Your task to perform on an android device: toggle translation in the chrome app Image 0: 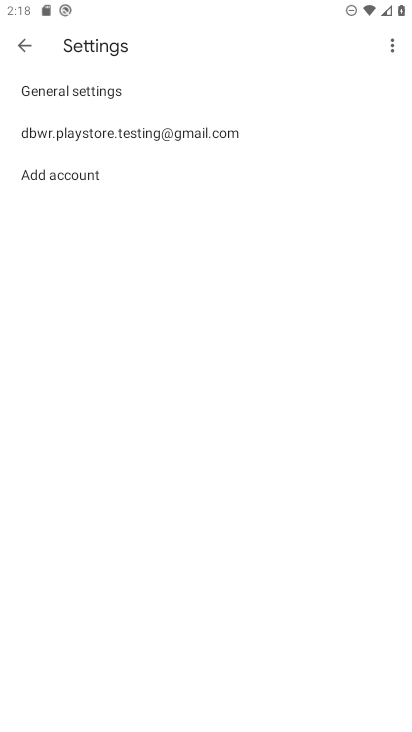
Step 0: press home button
Your task to perform on an android device: toggle translation in the chrome app Image 1: 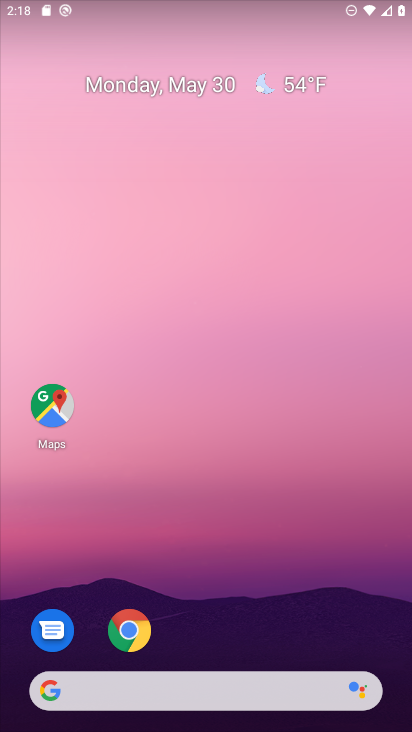
Step 1: click (135, 640)
Your task to perform on an android device: toggle translation in the chrome app Image 2: 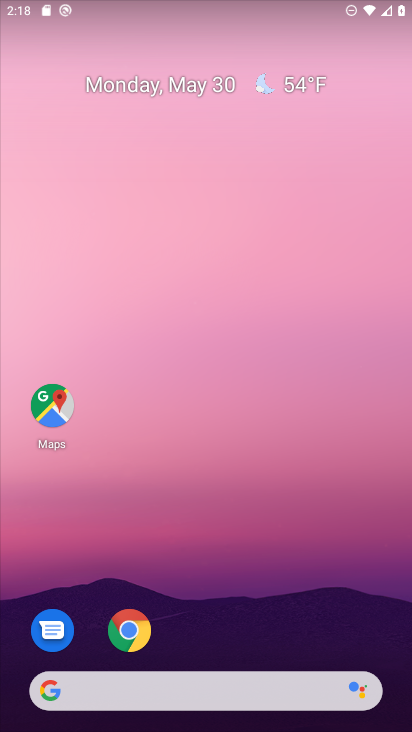
Step 2: click (130, 632)
Your task to perform on an android device: toggle translation in the chrome app Image 3: 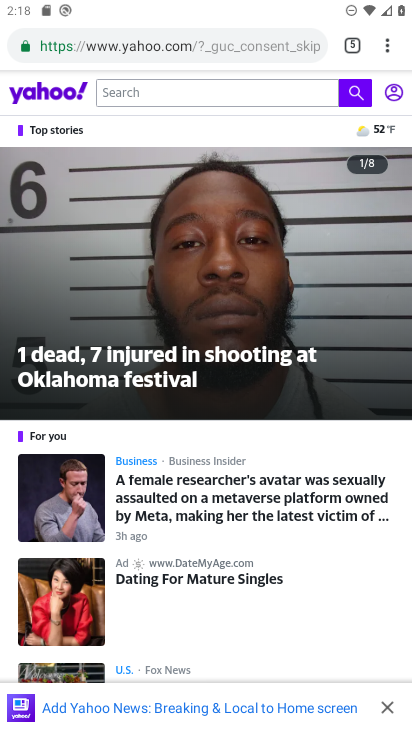
Step 3: drag from (384, 49) to (249, 548)
Your task to perform on an android device: toggle translation in the chrome app Image 4: 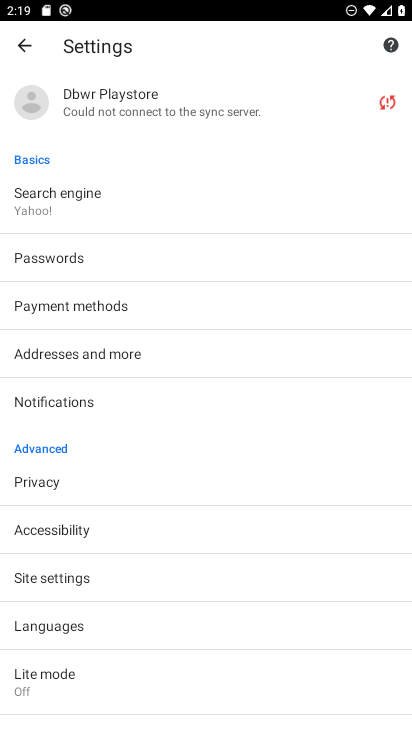
Step 4: click (96, 627)
Your task to perform on an android device: toggle translation in the chrome app Image 5: 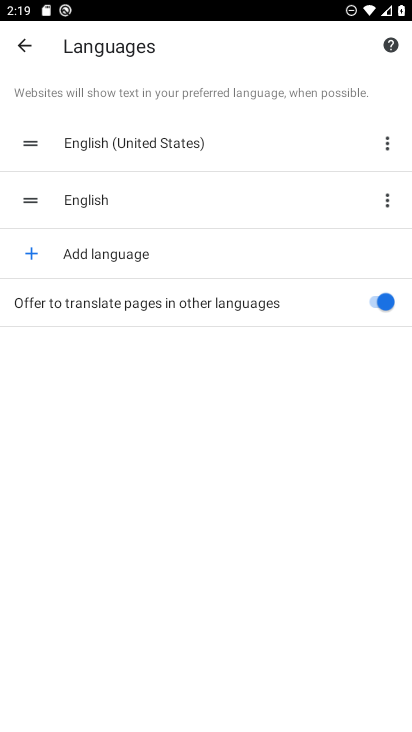
Step 5: click (373, 302)
Your task to perform on an android device: toggle translation in the chrome app Image 6: 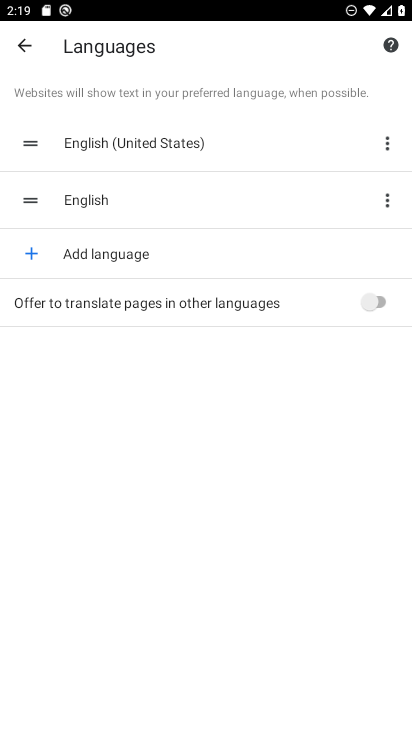
Step 6: task complete